Your task to perform on an android device: check data usage Image 0: 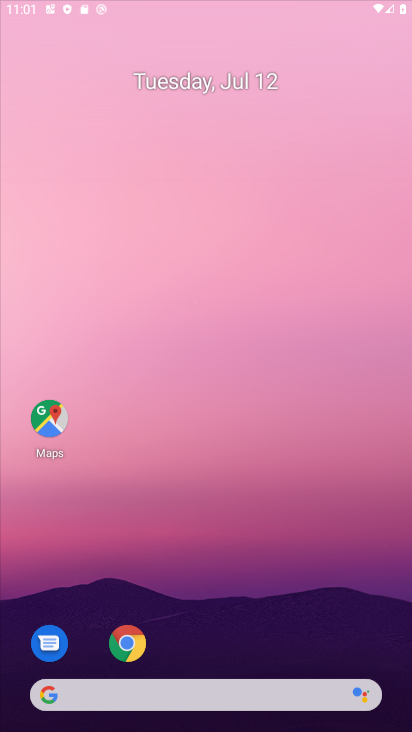
Step 0: press home button
Your task to perform on an android device: check data usage Image 1: 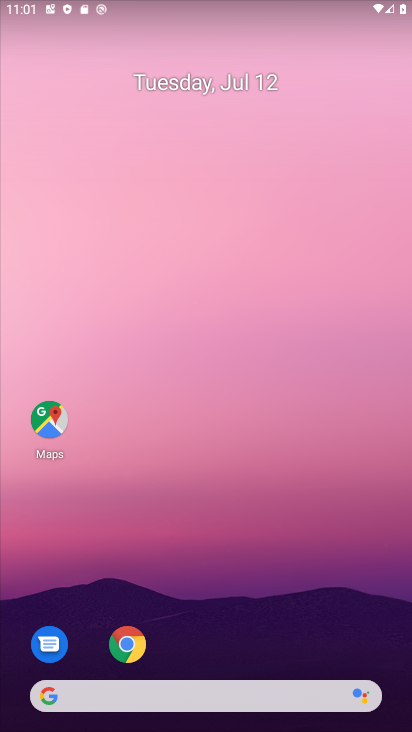
Step 1: drag from (221, 658) to (232, 25)
Your task to perform on an android device: check data usage Image 2: 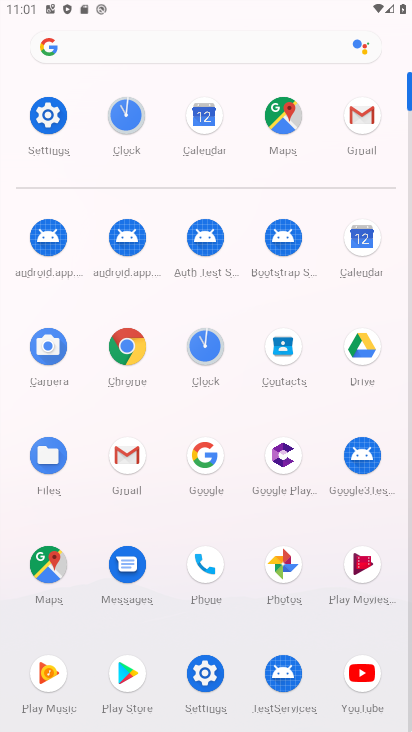
Step 2: click (46, 111)
Your task to perform on an android device: check data usage Image 3: 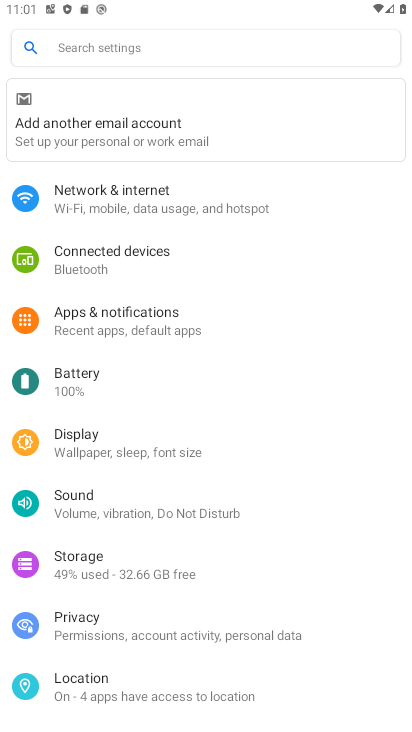
Step 3: click (168, 192)
Your task to perform on an android device: check data usage Image 4: 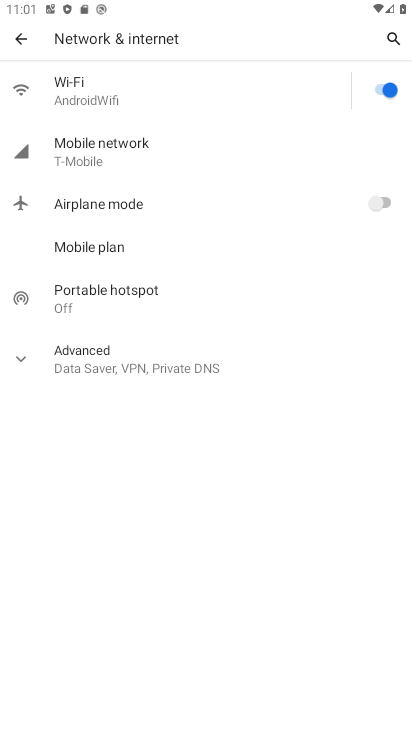
Step 4: click (96, 357)
Your task to perform on an android device: check data usage Image 5: 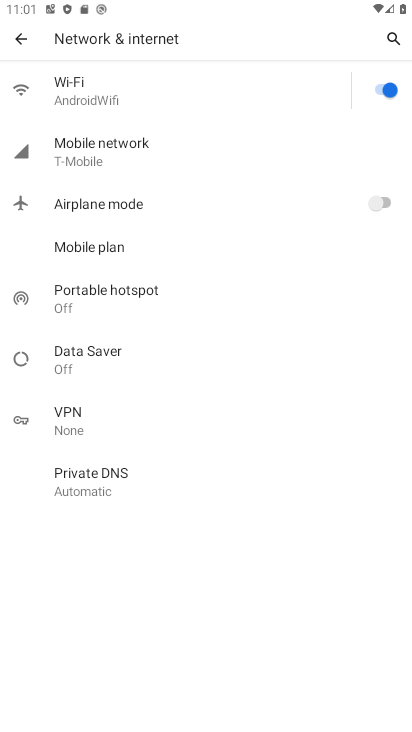
Step 5: click (100, 363)
Your task to perform on an android device: check data usage Image 6: 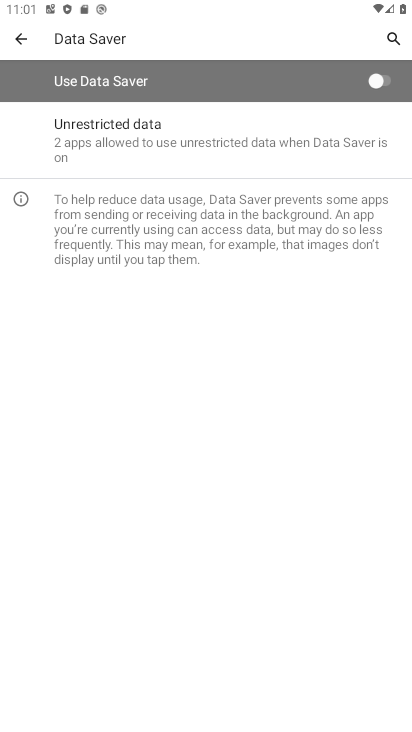
Step 6: click (26, 34)
Your task to perform on an android device: check data usage Image 7: 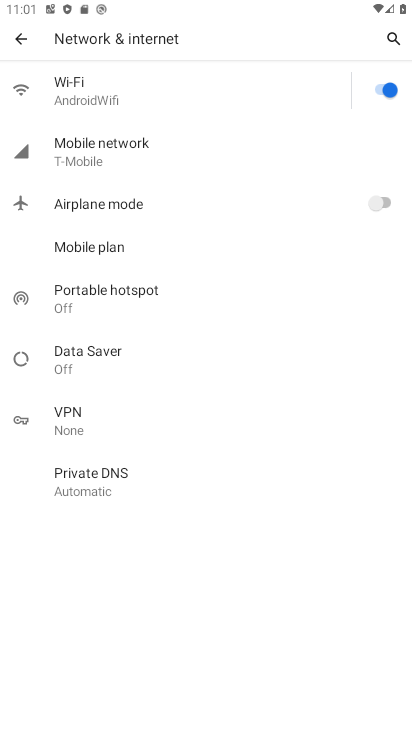
Step 7: click (120, 146)
Your task to perform on an android device: check data usage Image 8: 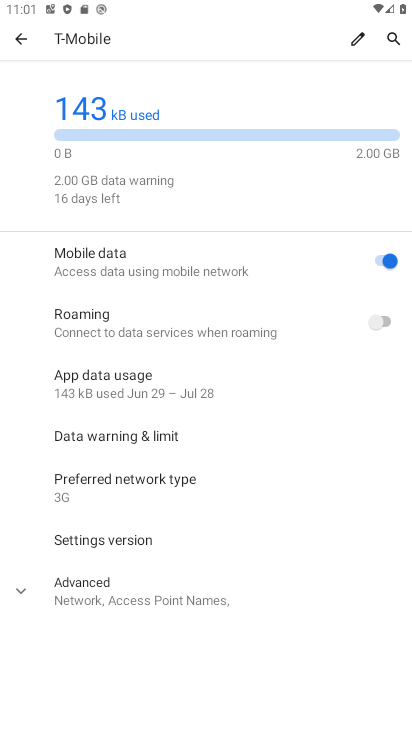
Step 8: click (144, 382)
Your task to perform on an android device: check data usage Image 9: 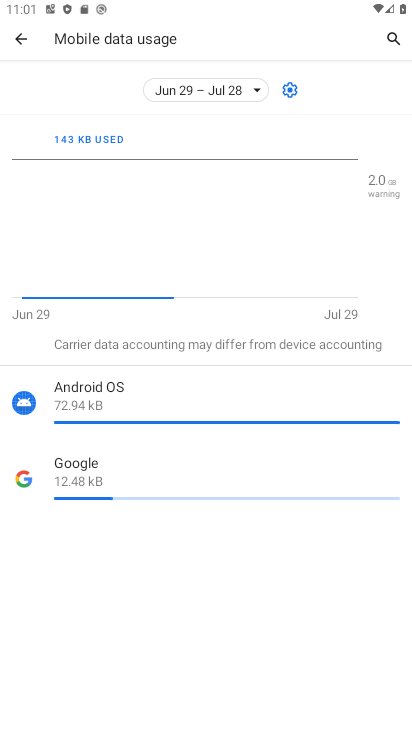
Step 9: task complete